Your task to perform on an android device: open chrome privacy settings Image 0: 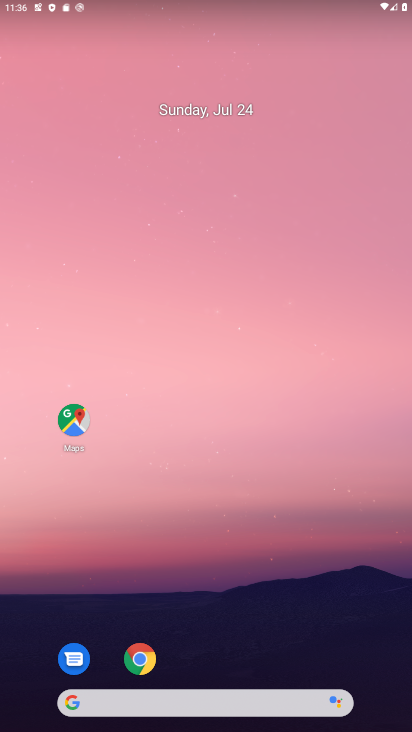
Step 0: click (144, 658)
Your task to perform on an android device: open chrome privacy settings Image 1: 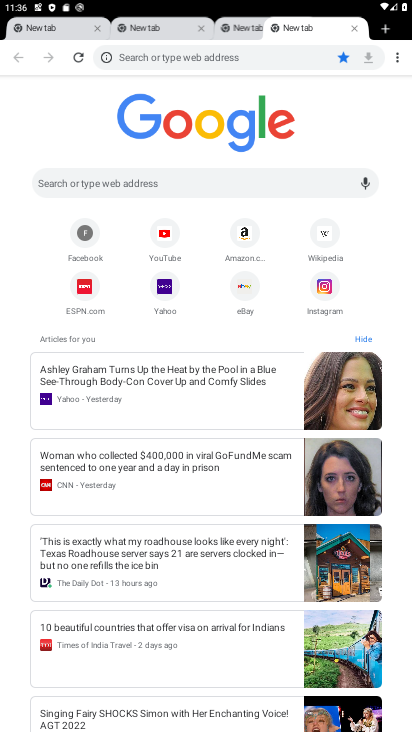
Step 1: click (401, 61)
Your task to perform on an android device: open chrome privacy settings Image 2: 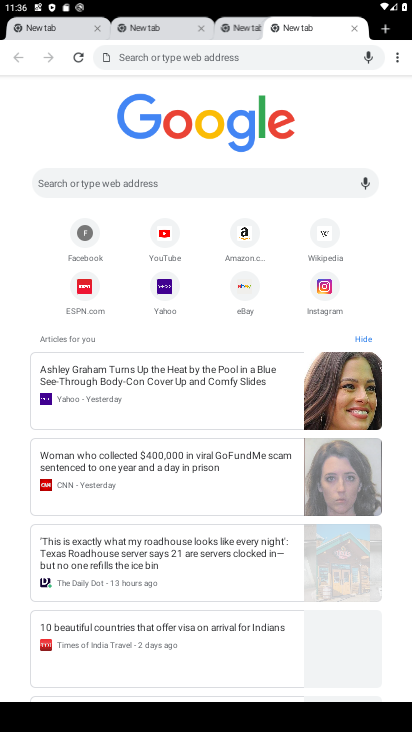
Step 2: click (400, 60)
Your task to perform on an android device: open chrome privacy settings Image 3: 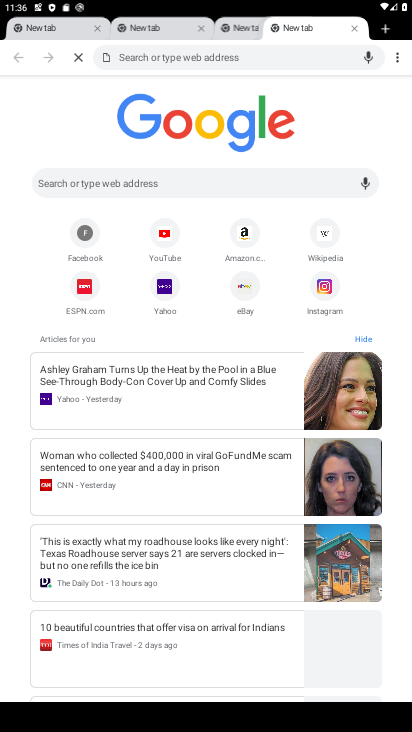
Step 3: click (400, 60)
Your task to perform on an android device: open chrome privacy settings Image 4: 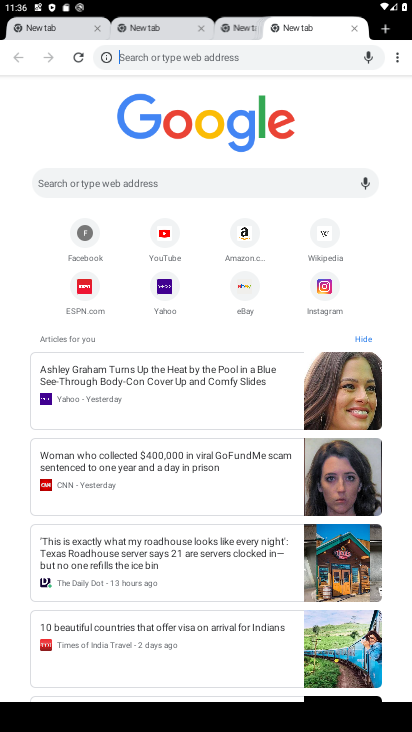
Step 4: task complete